Your task to perform on an android device: Open CNN.com Image 0: 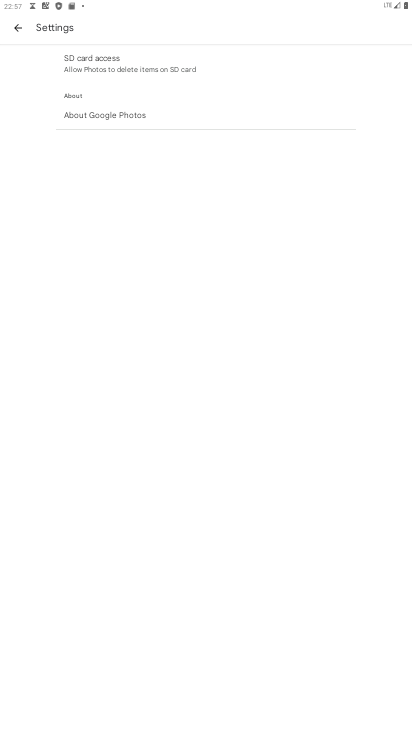
Step 0: press home button
Your task to perform on an android device: Open CNN.com Image 1: 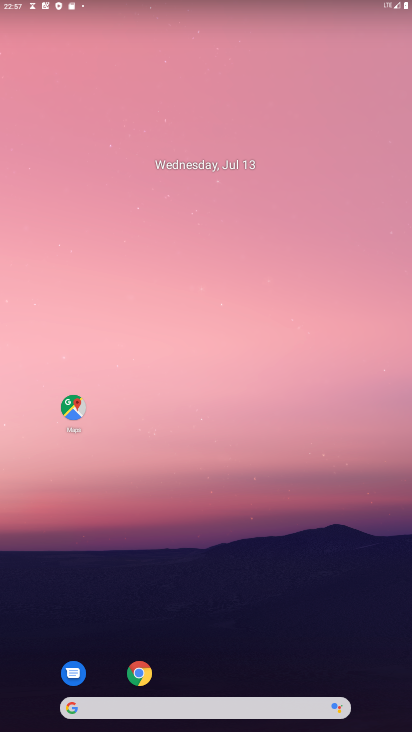
Step 1: drag from (217, 662) to (332, 138)
Your task to perform on an android device: Open CNN.com Image 2: 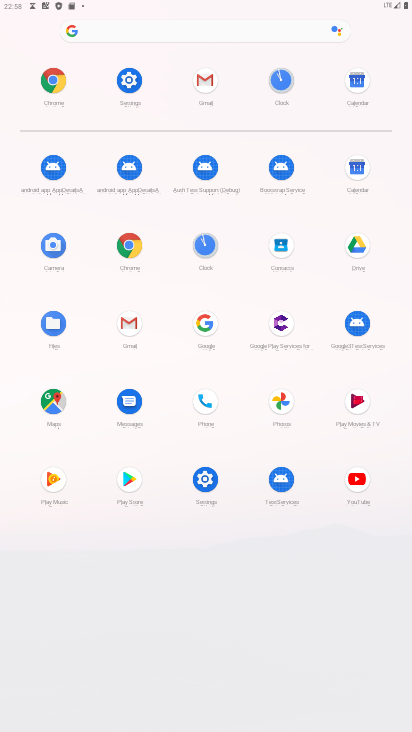
Step 2: click (128, 242)
Your task to perform on an android device: Open CNN.com Image 3: 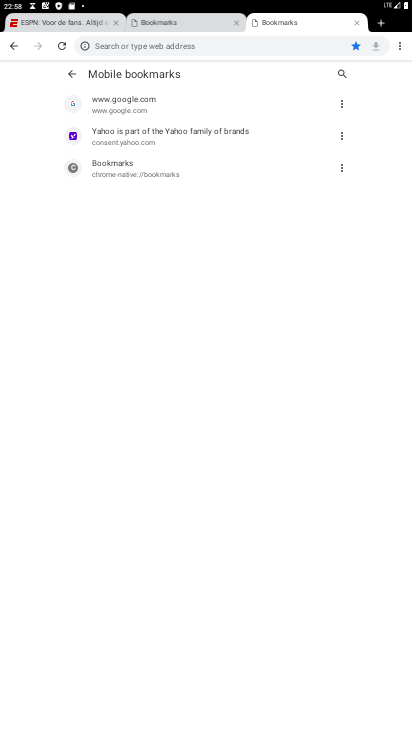
Step 3: drag from (183, 480) to (194, 367)
Your task to perform on an android device: Open CNN.com Image 4: 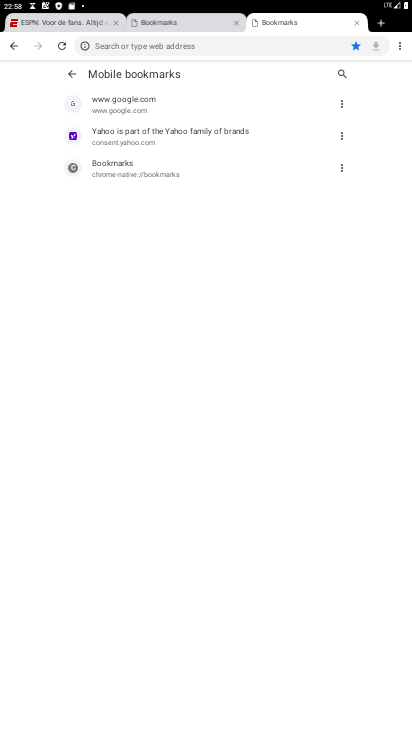
Step 4: click (255, 55)
Your task to perform on an android device: Open CNN.com Image 5: 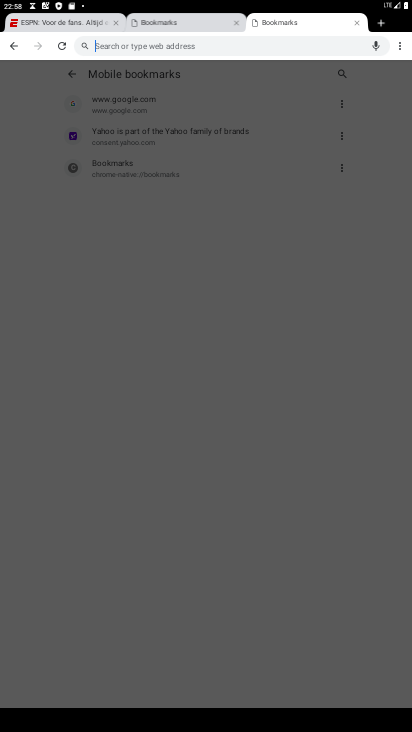
Step 5: type "cnn.com"
Your task to perform on an android device: Open CNN.com Image 6: 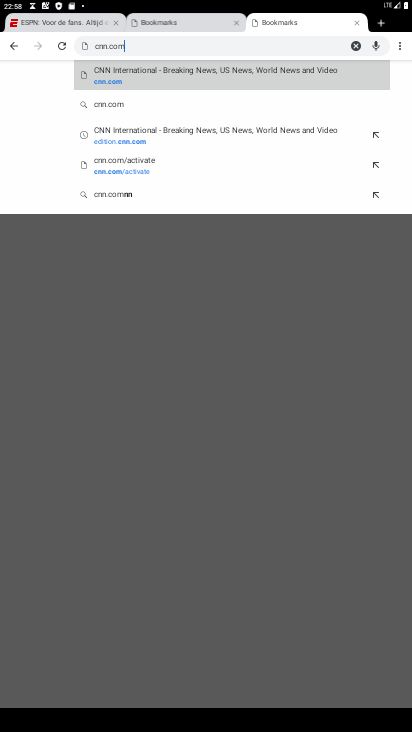
Step 6: click (95, 75)
Your task to perform on an android device: Open CNN.com Image 7: 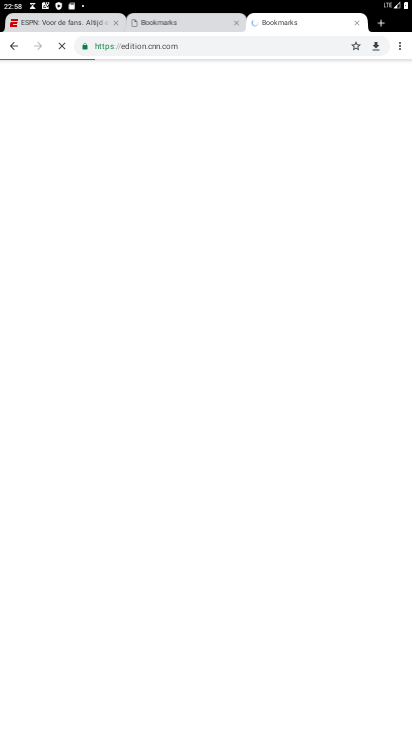
Step 7: task complete